Your task to perform on an android device: see creations saved in the google photos Image 0: 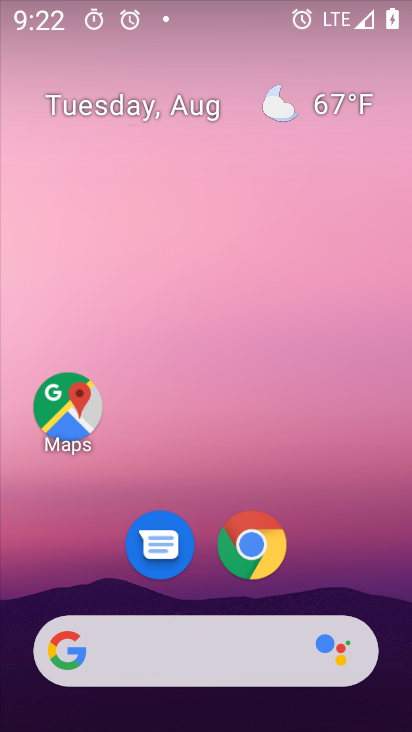
Step 0: drag from (290, 675) to (325, 0)
Your task to perform on an android device: see creations saved in the google photos Image 1: 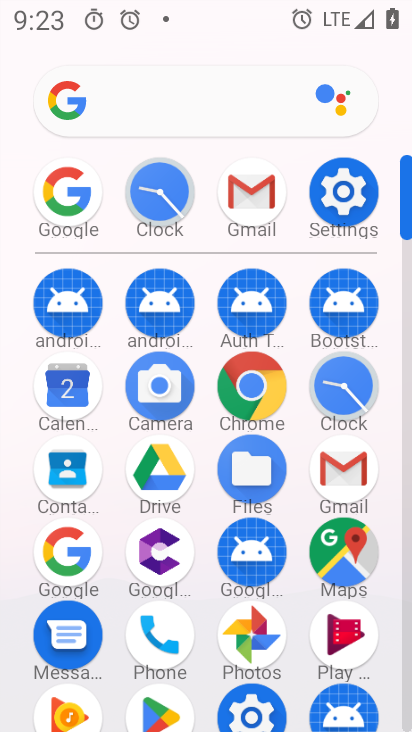
Step 1: click (254, 639)
Your task to perform on an android device: see creations saved in the google photos Image 2: 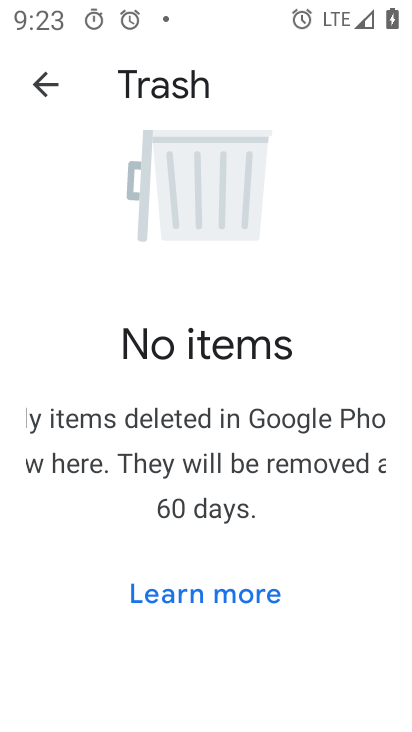
Step 2: click (40, 90)
Your task to perform on an android device: see creations saved in the google photos Image 3: 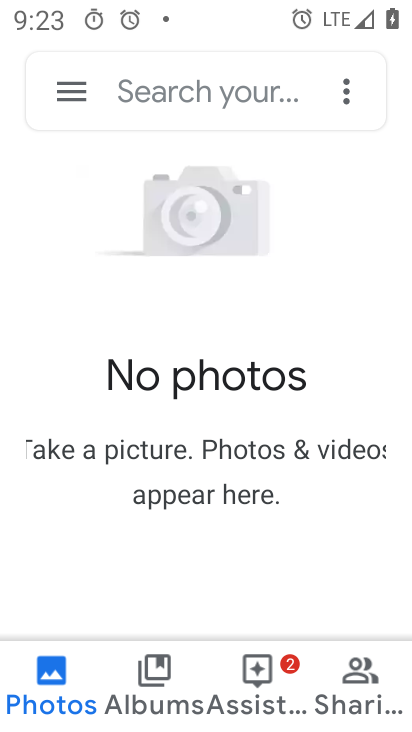
Step 3: click (168, 685)
Your task to perform on an android device: see creations saved in the google photos Image 4: 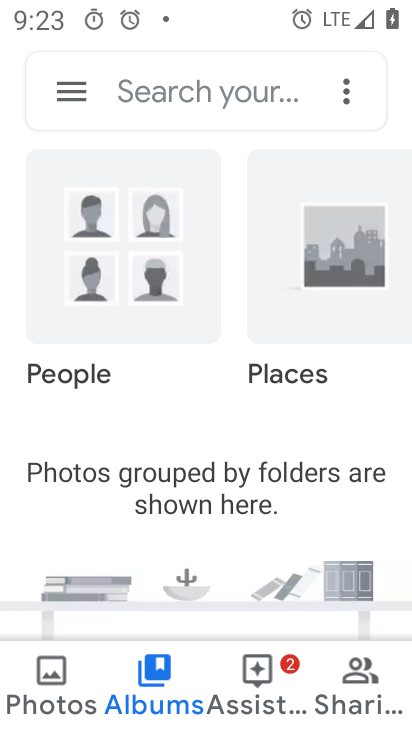
Step 4: click (252, 702)
Your task to perform on an android device: see creations saved in the google photos Image 5: 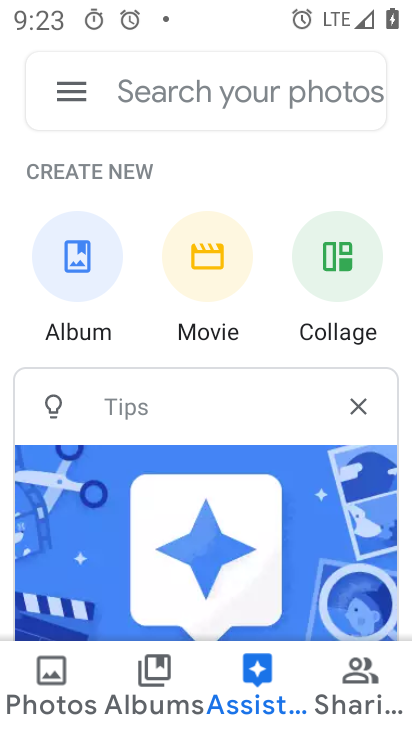
Step 5: click (340, 699)
Your task to perform on an android device: see creations saved in the google photos Image 6: 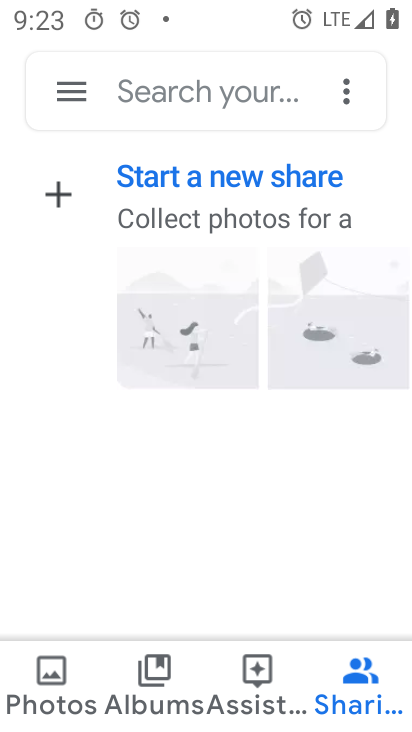
Step 6: task complete